Your task to perform on an android device: open a bookmark in the chrome app Image 0: 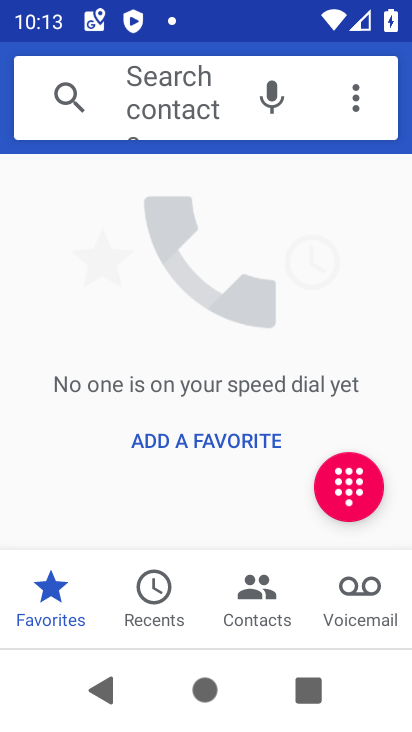
Step 0: press home button
Your task to perform on an android device: open a bookmark in the chrome app Image 1: 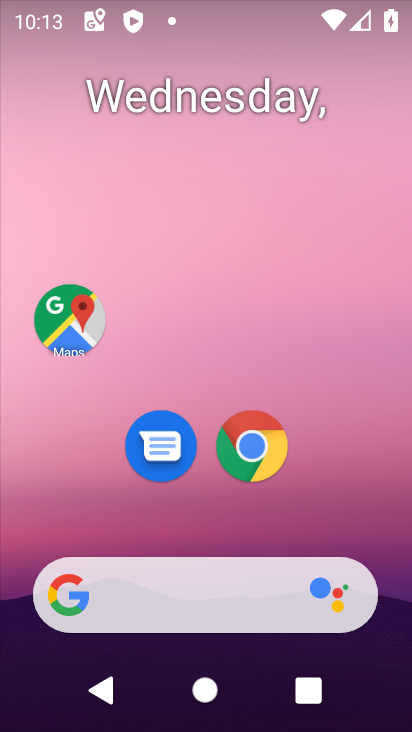
Step 1: click (255, 438)
Your task to perform on an android device: open a bookmark in the chrome app Image 2: 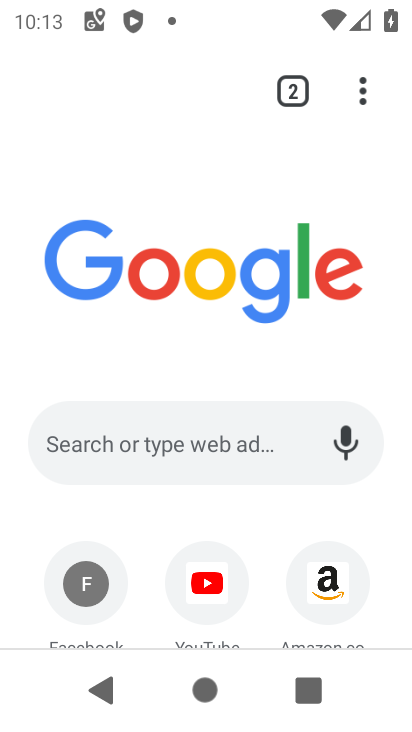
Step 2: click (365, 90)
Your task to perform on an android device: open a bookmark in the chrome app Image 3: 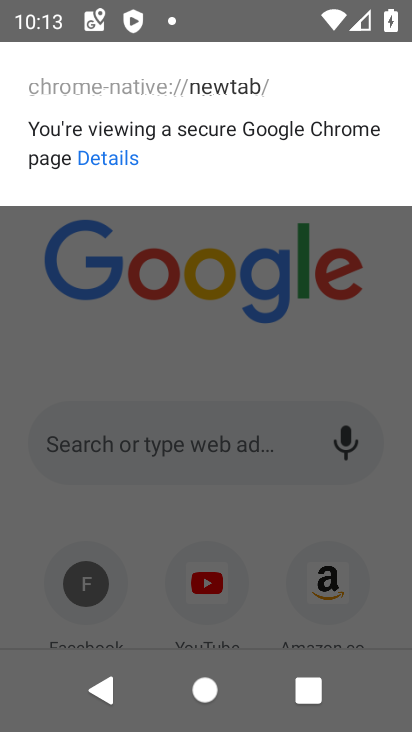
Step 3: click (299, 288)
Your task to perform on an android device: open a bookmark in the chrome app Image 4: 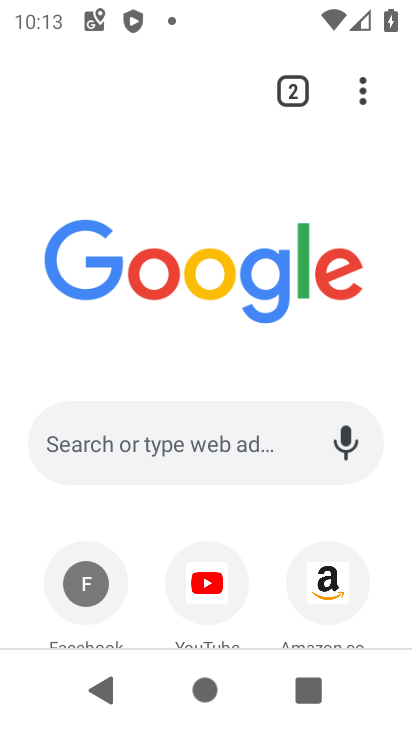
Step 4: click (364, 90)
Your task to perform on an android device: open a bookmark in the chrome app Image 5: 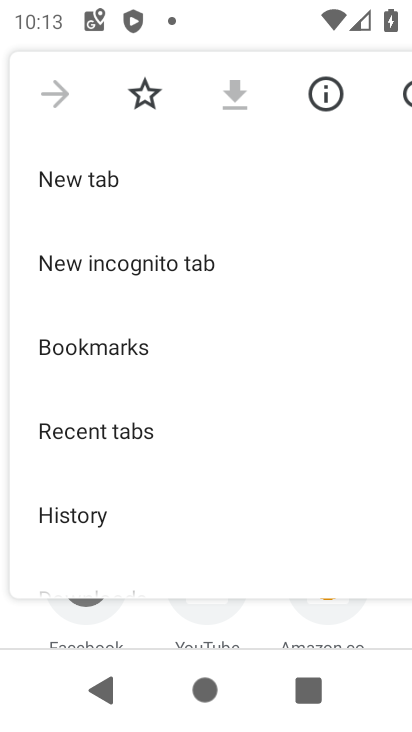
Step 5: click (122, 361)
Your task to perform on an android device: open a bookmark in the chrome app Image 6: 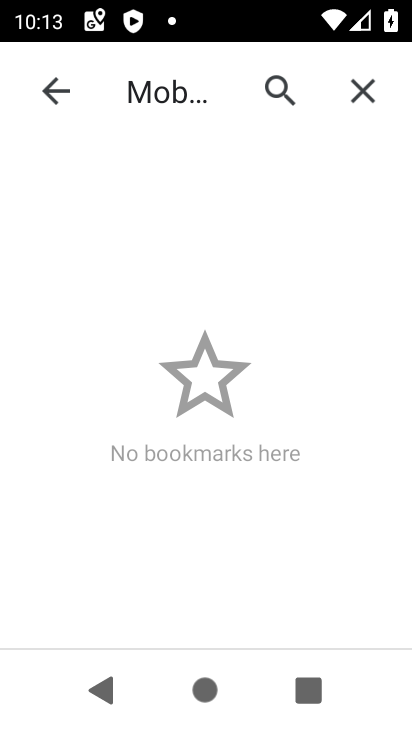
Step 6: task complete